Your task to perform on an android device: move an email to a new category in the gmail app Image 0: 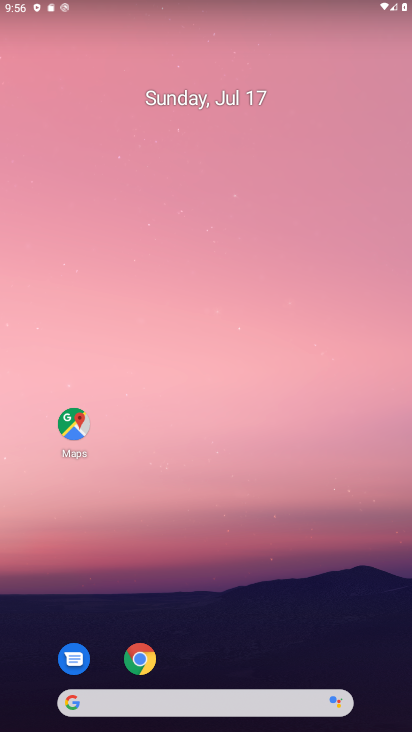
Step 0: drag from (182, 709) to (156, 306)
Your task to perform on an android device: move an email to a new category in the gmail app Image 1: 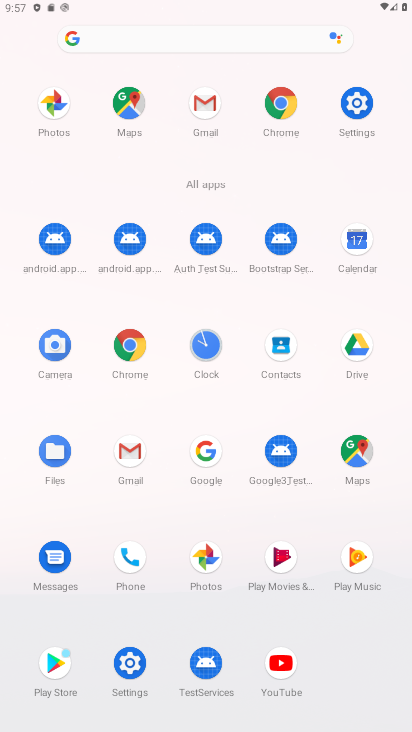
Step 1: click (131, 474)
Your task to perform on an android device: move an email to a new category in the gmail app Image 2: 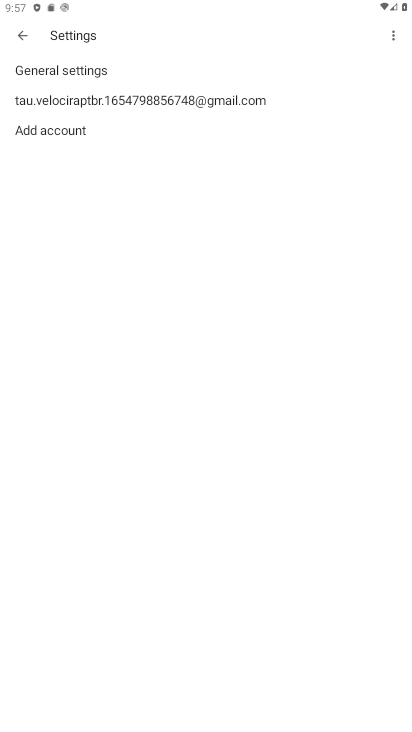
Step 2: click (17, 38)
Your task to perform on an android device: move an email to a new category in the gmail app Image 3: 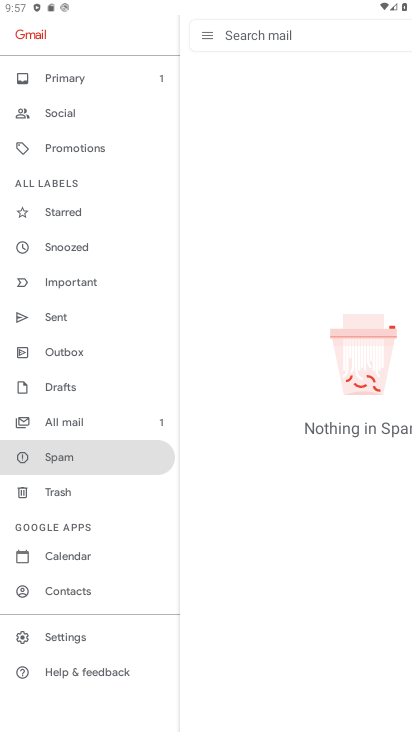
Step 3: click (83, 419)
Your task to perform on an android device: move an email to a new category in the gmail app Image 4: 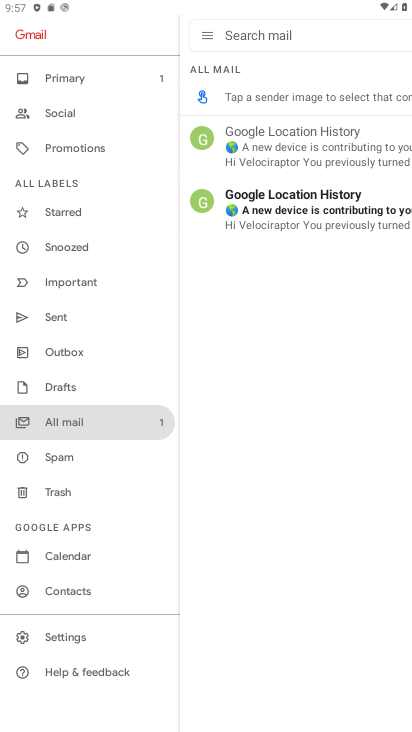
Step 4: click (204, 140)
Your task to perform on an android device: move an email to a new category in the gmail app Image 5: 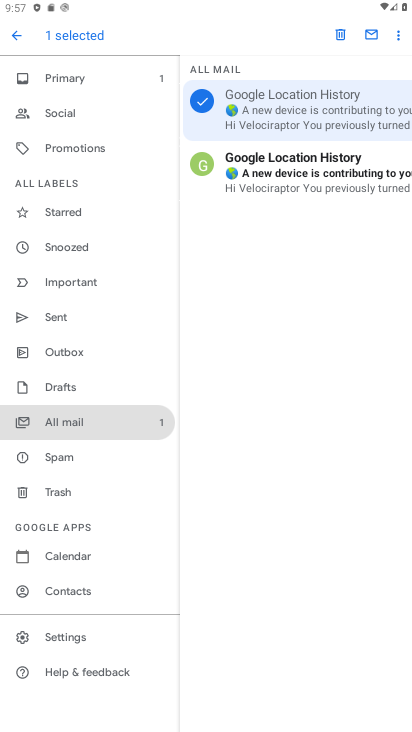
Step 5: click (397, 36)
Your task to perform on an android device: move an email to a new category in the gmail app Image 6: 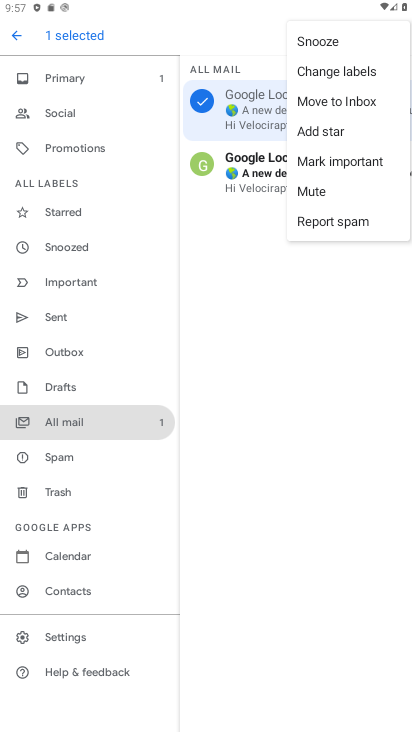
Step 6: click (347, 104)
Your task to perform on an android device: move an email to a new category in the gmail app Image 7: 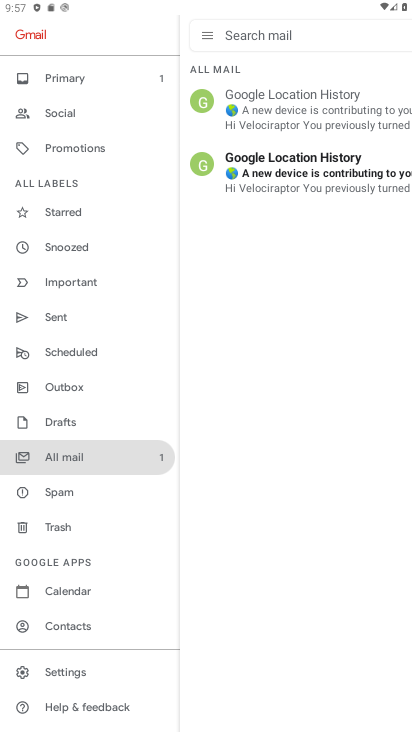
Step 7: task complete